Your task to perform on an android device: add a label to a message in the gmail app Image 0: 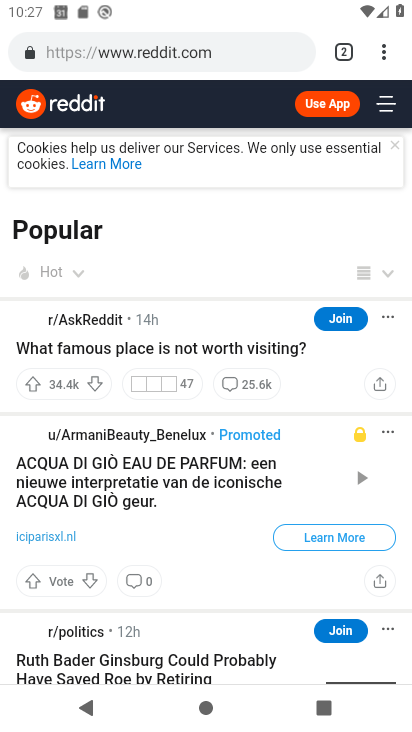
Step 0: press home button
Your task to perform on an android device: add a label to a message in the gmail app Image 1: 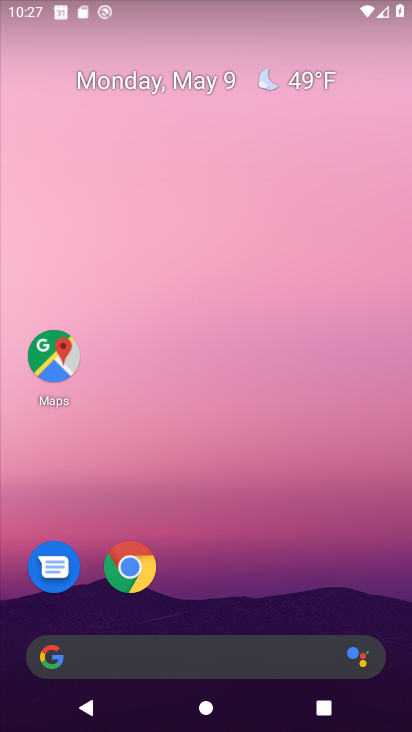
Step 1: drag from (113, 619) to (149, 123)
Your task to perform on an android device: add a label to a message in the gmail app Image 2: 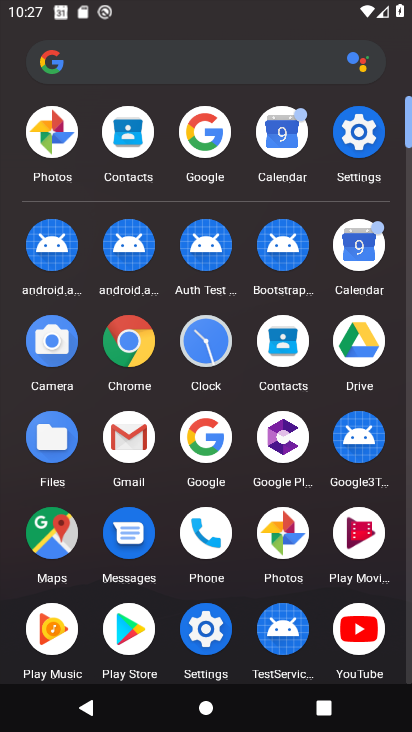
Step 2: click (121, 447)
Your task to perform on an android device: add a label to a message in the gmail app Image 3: 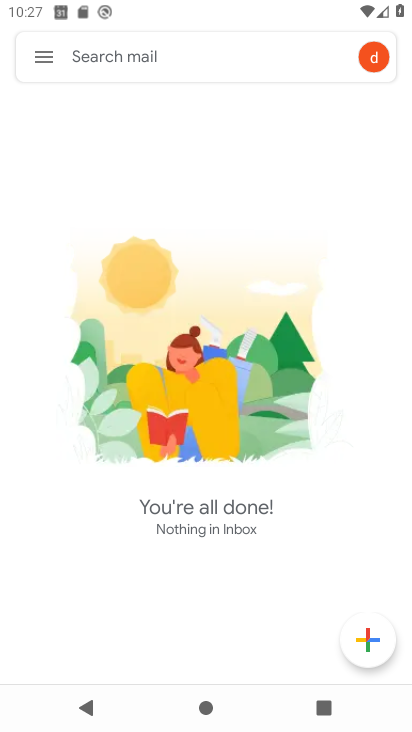
Step 3: click (41, 63)
Your task to perform on an android device: add a label to a message in the gmail app Image 4: 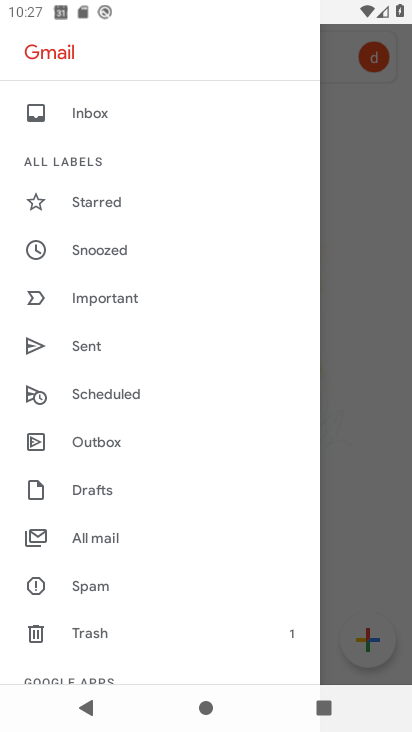
Step 4: click (93, 112)
Your task to perform on an android device: add a label to a message in the gmail app Image 5: 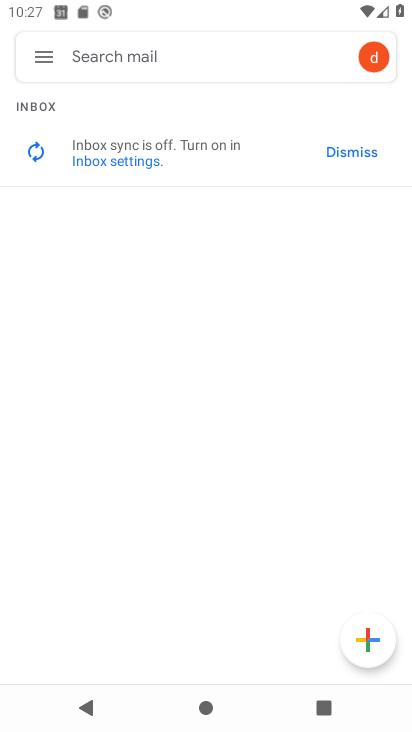
Step 5: task complete